Your task to perform on an android device: remove spam from my inbox in the gmail app Image 0: 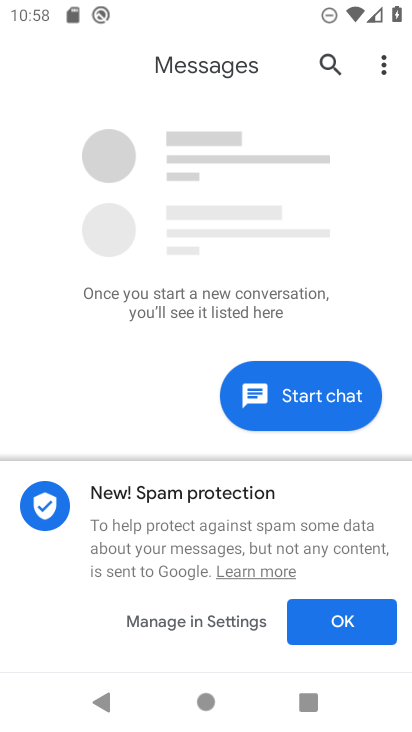
Step 0: press home button
Your task to perform on an android device: remove spam from my inbox in the gmail app Image 1: 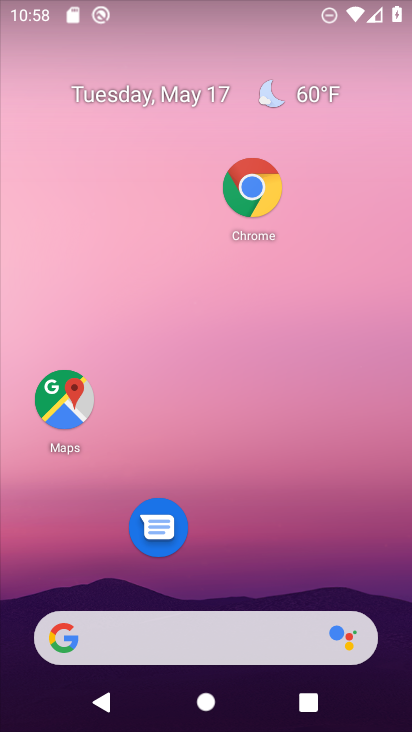
Step 1: drag from (358, 569) to (330, 247)
Your task to perform on an android device: remove spam from my inbox in the gmail app Image 2: 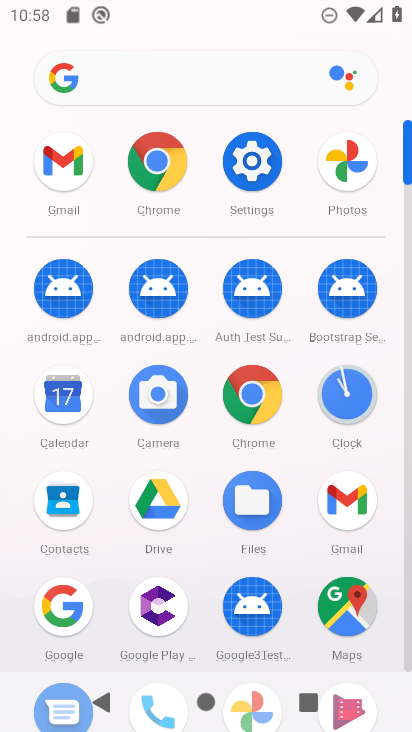
Step 2: click (88, 183)
Your task to perform on an android device: remove spam from my inbox in the gmail app Image 3: 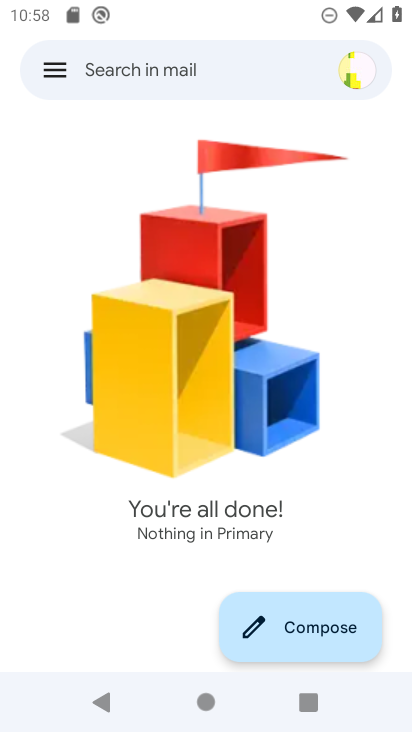
Step 3: click (52, 55)
Your task to perform on an android device: remove spam from my inbox in the gmail app Image 4: 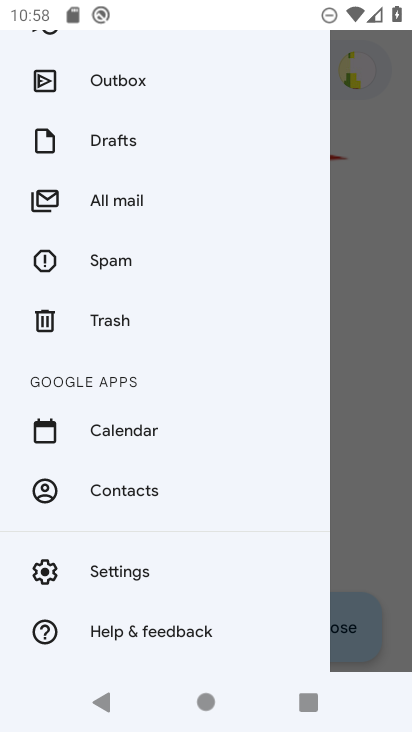
Step 4: click (122, 586)
Your task to perform on an android device: remove spam from my inbox in the gmail app Image 5: 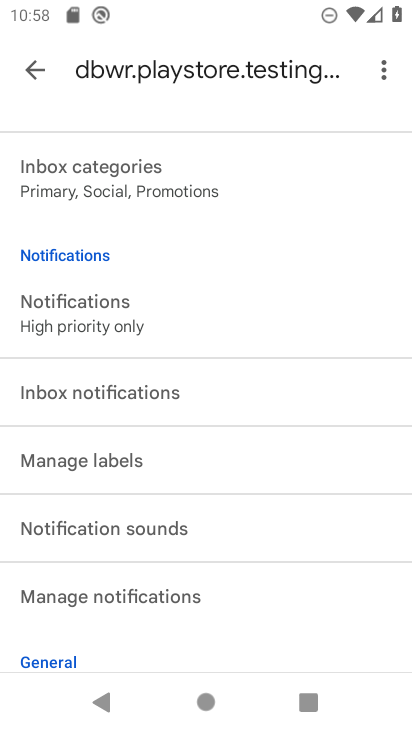
Step 5: click (35, 74)
Your task to perform on an android device: remove spam from my inbox in the gmail app Image 6: 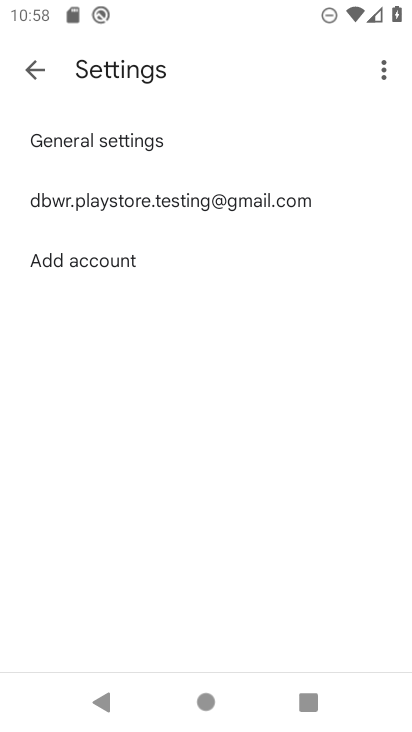
Step 6: click (38, 84)
Your task to perform on an android device: remove spam from my inbox in the gmail app Image 7: 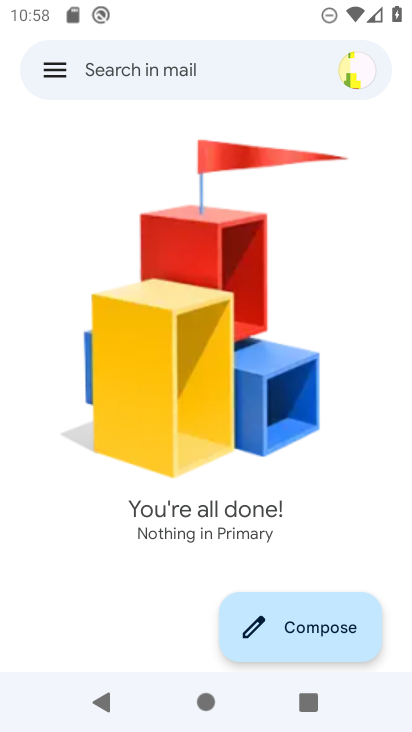
Step 7: click (37, 85)
Your task to perform on an android device: remove spam from my inbox in the gmail app Image 8: 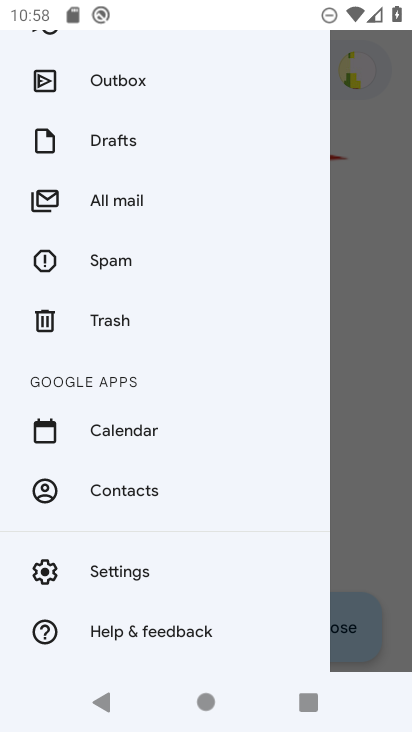
Step 8: click (140, 237)
Your task to perform on an android device: remove spam from my inbox in the gmail app Image 9: 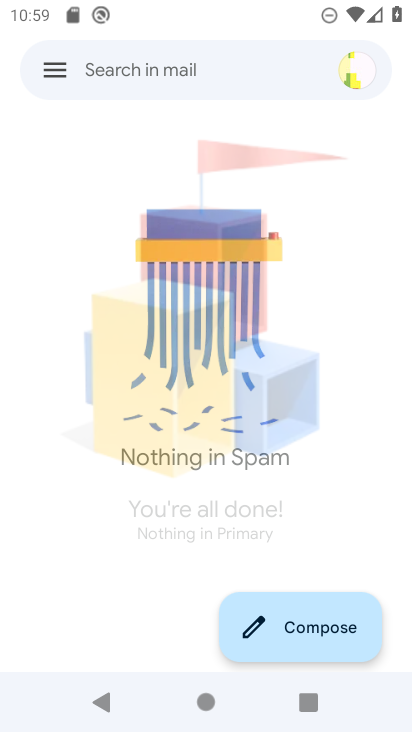
Step 9: task complete